Your task to perform on an android device: toggle location history Image 0: 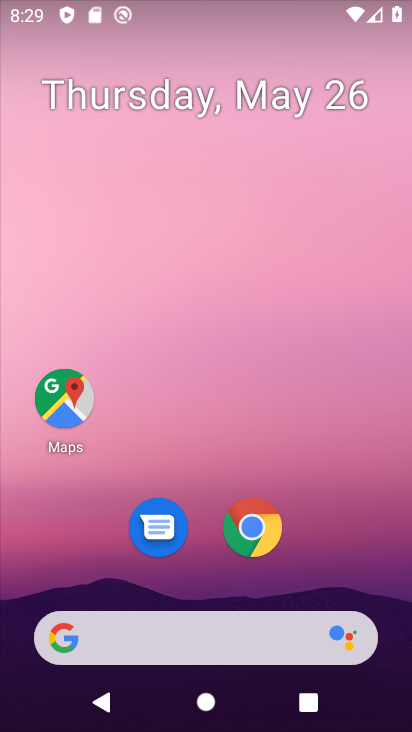
Step 0: drag from (343, 546) to (251, 195)
Your task to perform on an android device: toggle location history Image 1: 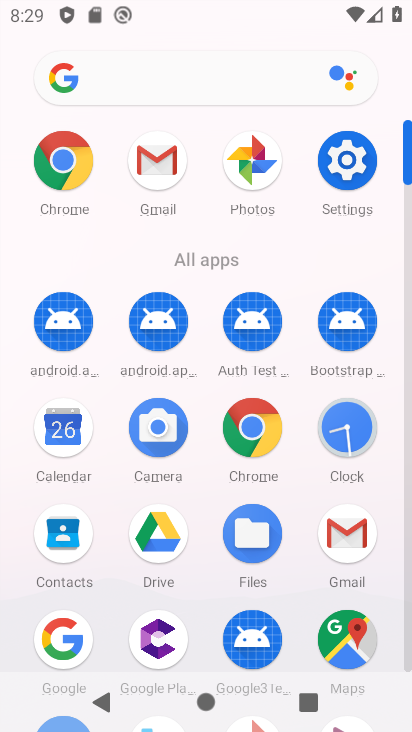
Step 1: click (352, 150)
Your task to perform on an android device: toggle location history Image 2: 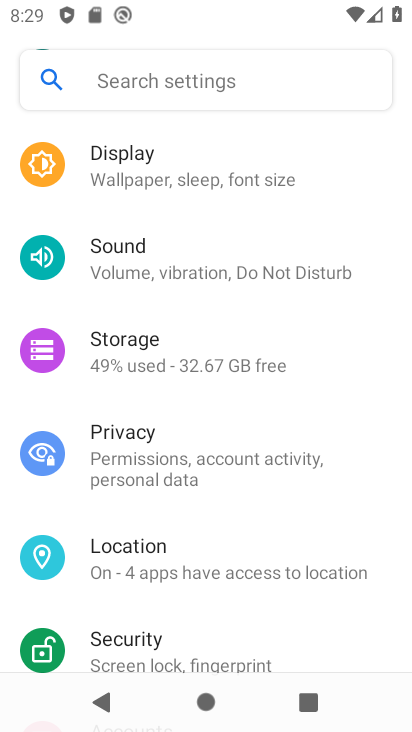
Step 2: drag from (205, 526) to (259, 100)
Your task to perform on an android device: toggle location history Image 3: 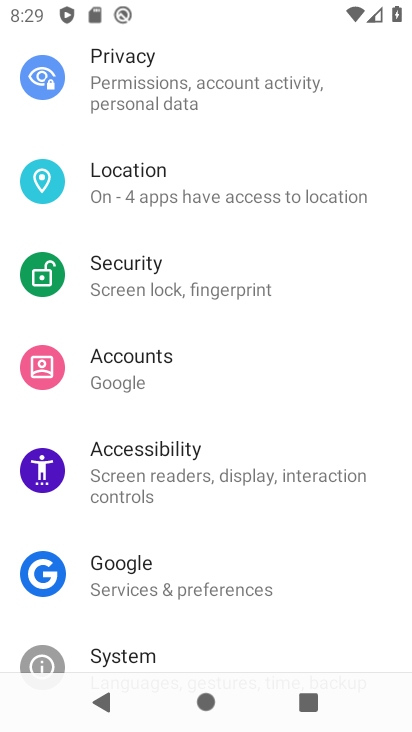
Step 3: click (185, 198)
Your task to perform on an android device: toggle location history Image 4: 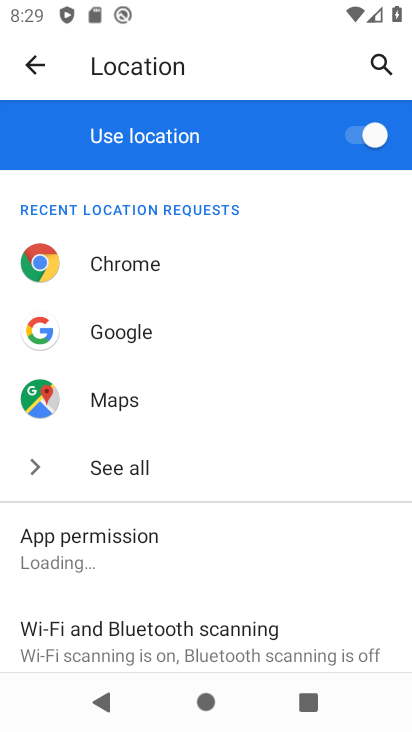
Step 4: drag from (134, 567) to (186, 230)
Your task to perform on an android device: toggle location history Image 5: 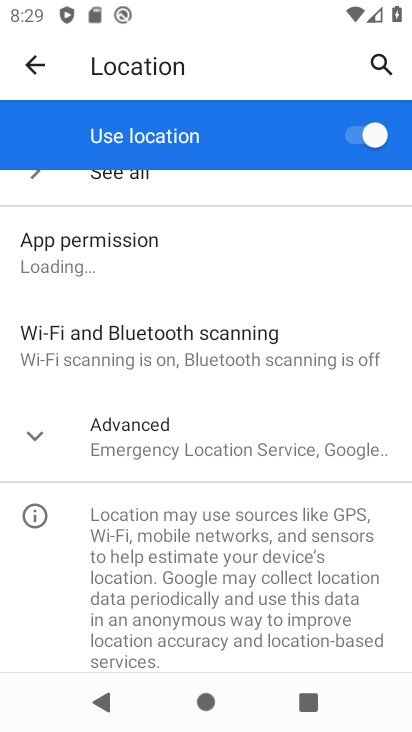
Step 5: click (147, 465)
Your task to perform on an android device: toggle location history Image 6: 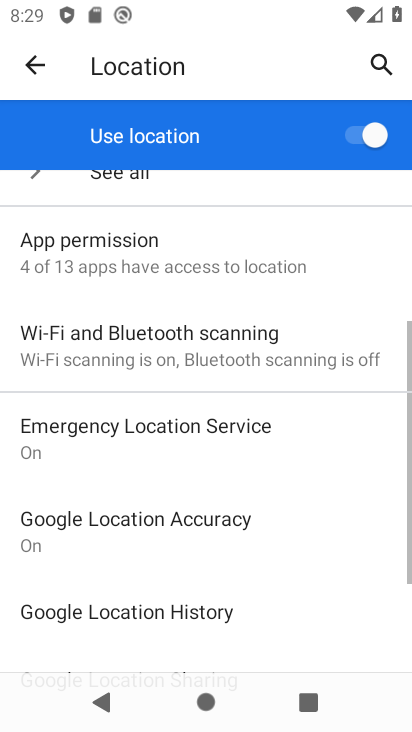
Step 6: click (181, 600)
Your task to perform on an android device: toggle location history Image 7: 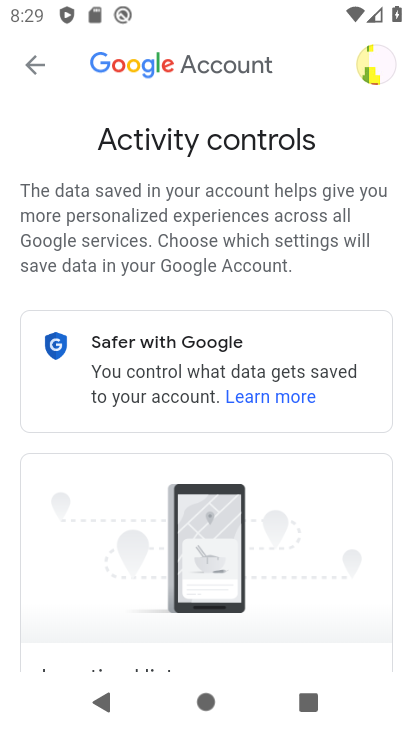
Step 7: drag from (197, 582) to (198, 134)
Your task to perform on an android device: toggle location history Image 8: 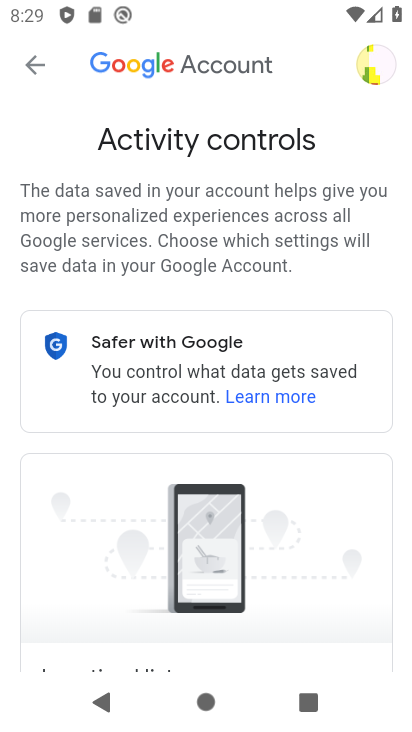
Step 8: drag from (287, 538) to (341, 46)
Your task to perform on an android device: toggle location history Image 9: 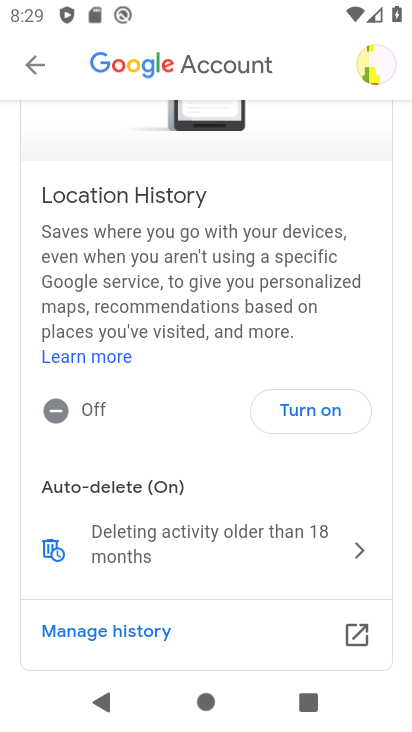
Step 9: click (338, 403)
Your task to perform on an android device: toggle location history Image 10: 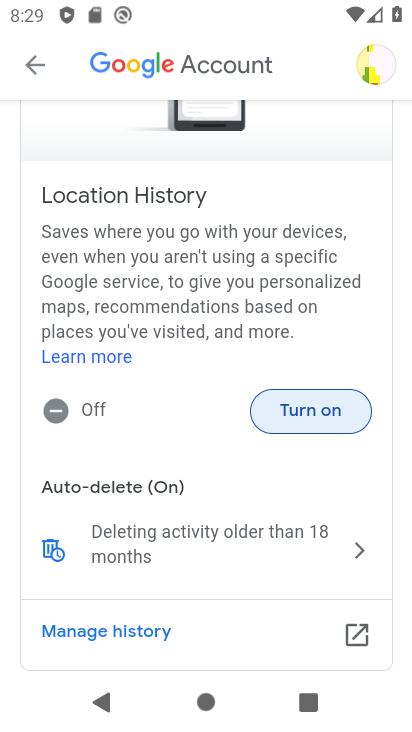
Step 10: click (328, 416)
Your task to perform on an android device: toggle location history Image 11: 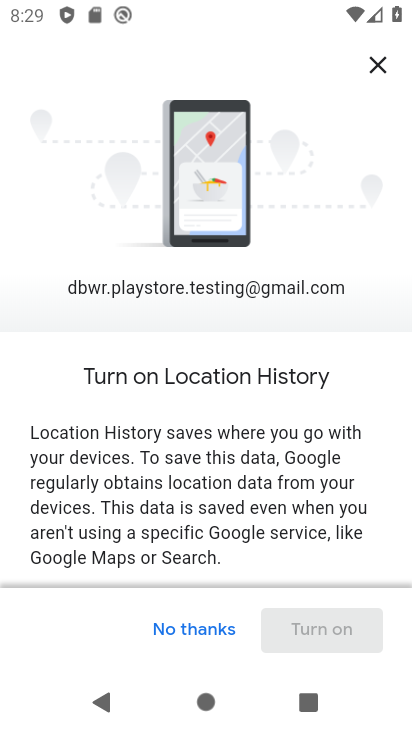
Step 11: drag from (290, 526) to (307, 90)
Your task to perform on an android device: toggle location history Image 12: 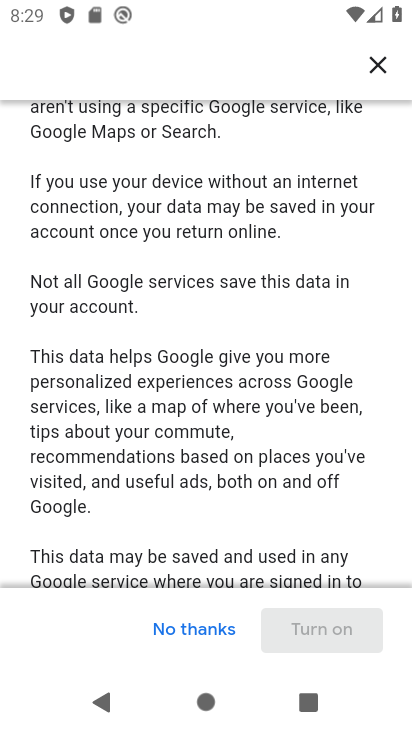
Step 12: drag from (303, 549) to (303, 154)
Your task to perform on an android device: toggle location history Image 13: 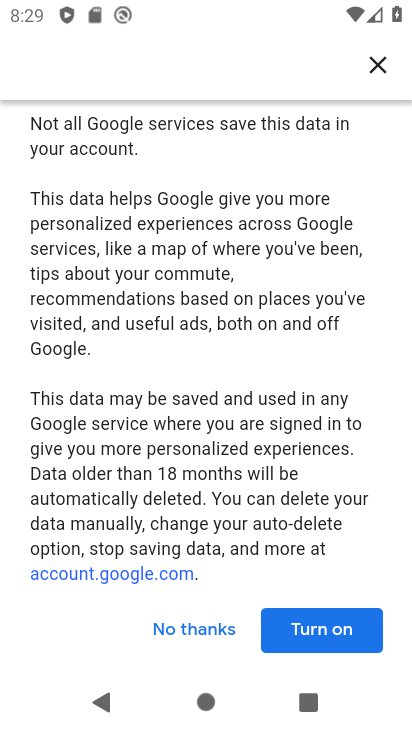
Step 13: click (308, 629)
Your task to perform on an android device: toggle location history Image 14: 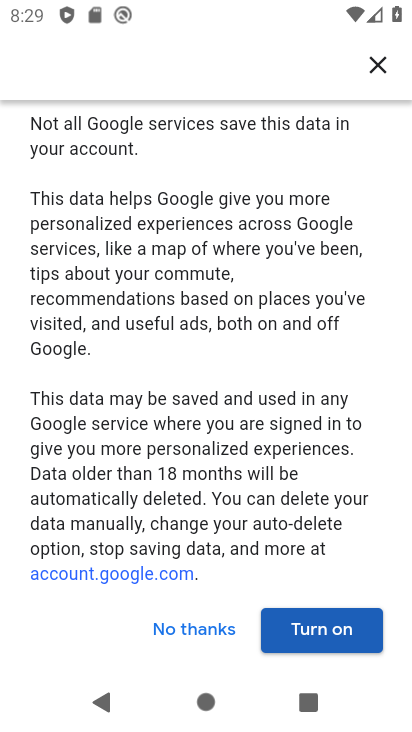
Step 14: click (336, 634)
Your task to perform on an android device: toggle location history Image 15: 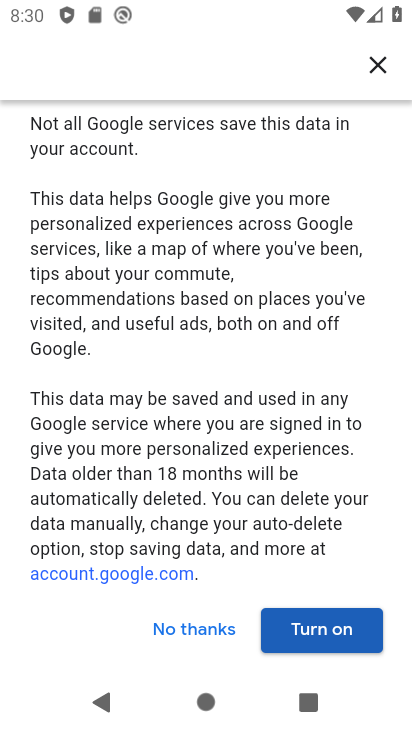
Step 15: click (333, 623)
Your task to perform on an android device: toggle location history Image 16: 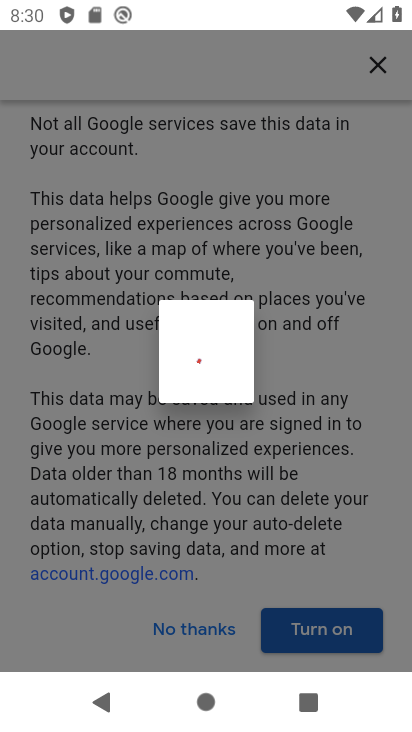
Step 16: click (326, 629)
Your task to perform on an android device: toggle location history Image 17: 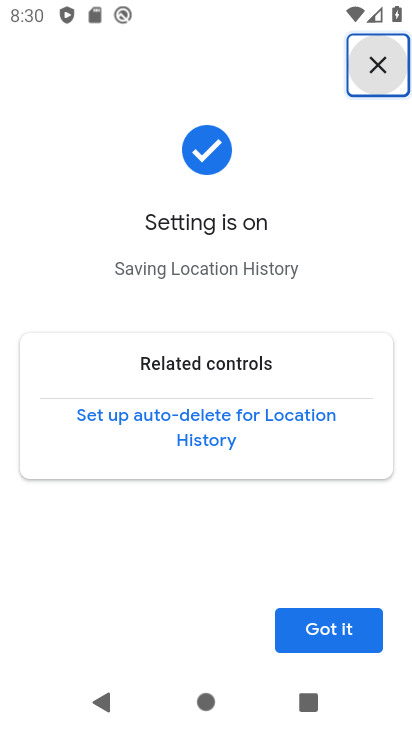
Step 17: task complete